Your task to perform on an android device: show emergency info Image 0: 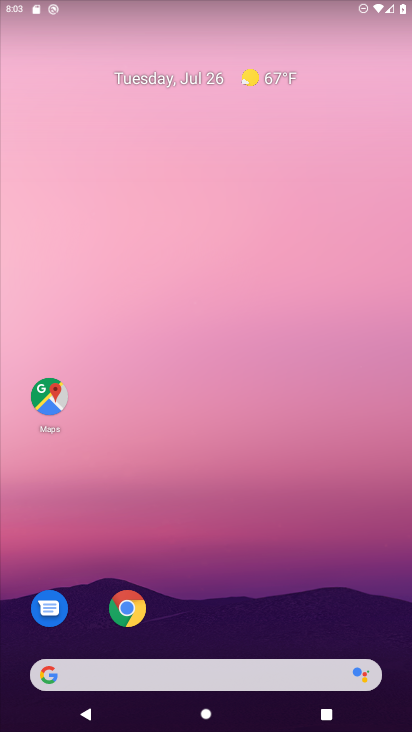
Step 0: drag from (202, 522) to (158, 0)
Your task to perform on an android device: show emergency info Image 1: 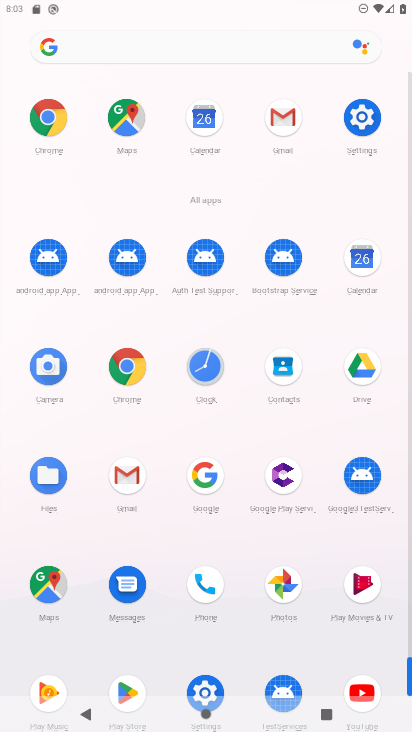
Step 1: click (366, 123)
Your task to perform on an android device: show emergency info Image 2: 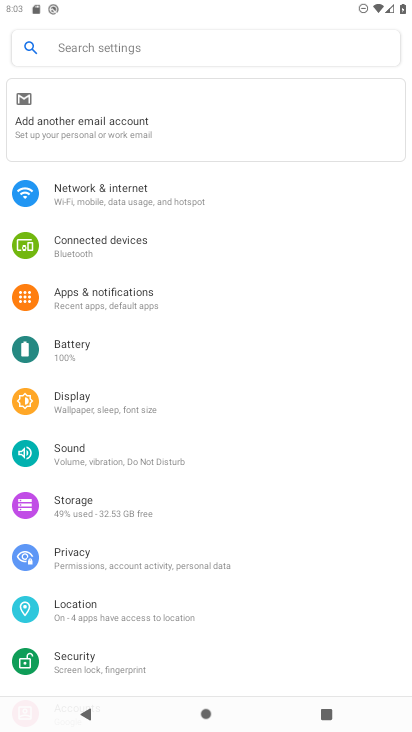
Step 2: drag from (131, 586) to (188, 0)
Your task to perform on an android device: show emergency info Image 3: 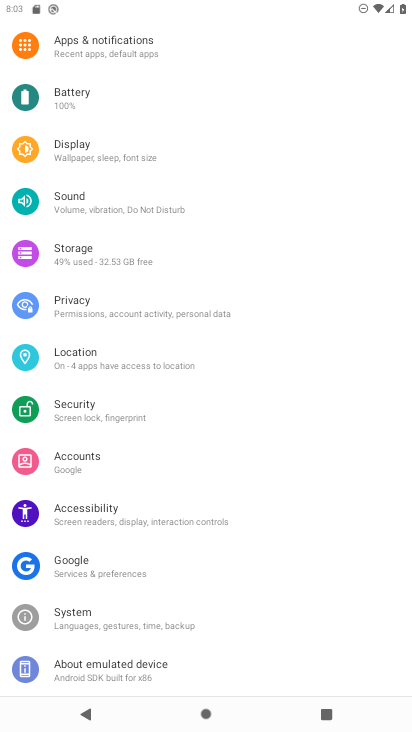
Step 3: click (105, 664)
Your task to perform on an android device: show emergency info Image 4: 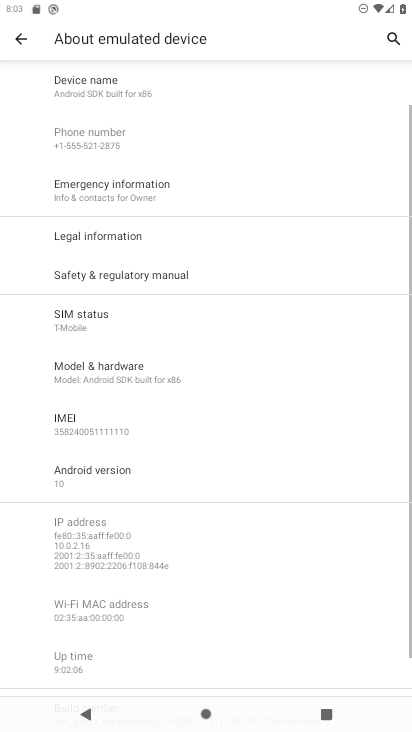
Step 4: click (142, 191)
Your task to perform on an android device: show emergency info Image 5: 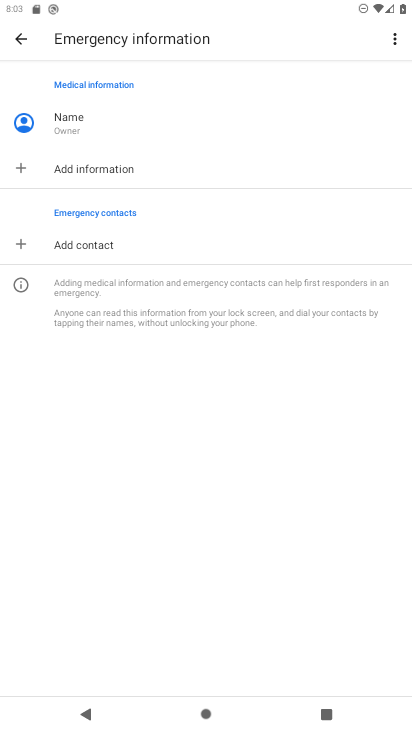
Step 5: task complete